Your task to perform on an android device: turn on bluetooth scan Image 0: 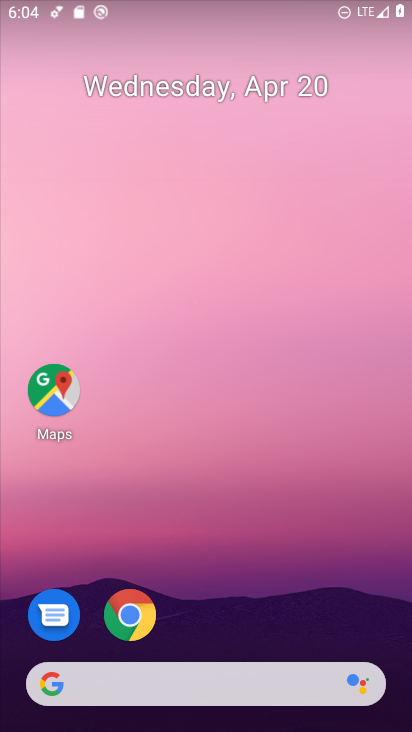
Step 0: drag from (272, 402) to (265, 59)
Your task to perform on an android device: turn on bluetooth scan Image 1: 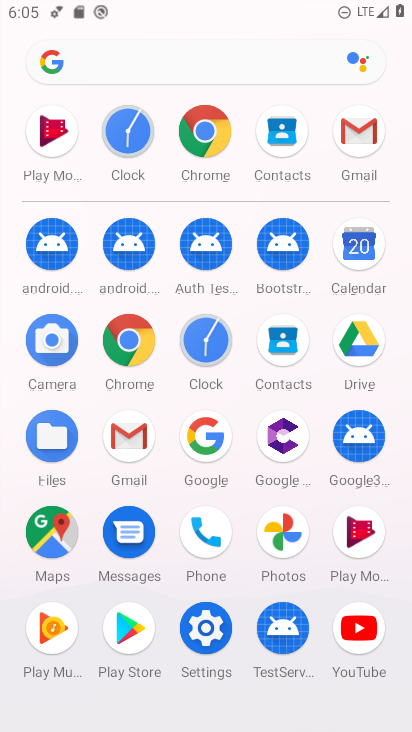
Step 1: click (208, 622)
Your task to perform on an android device: turn on bluetooth scan Image 2: 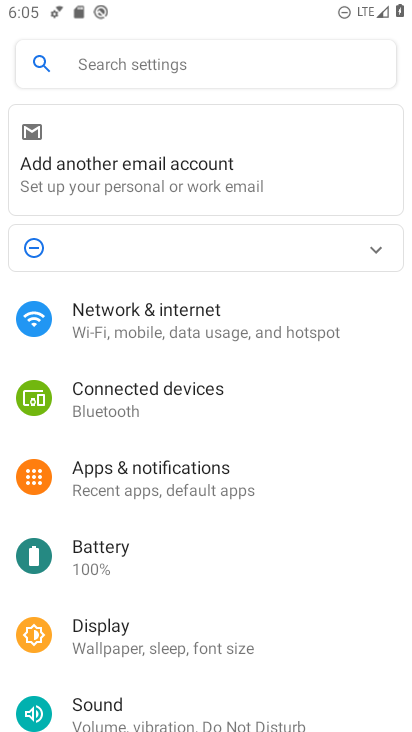
Step 2: drag from (296, 413) to (291, 99)
Your task to perform on an android device: turn on bluetooth scan Image 3: 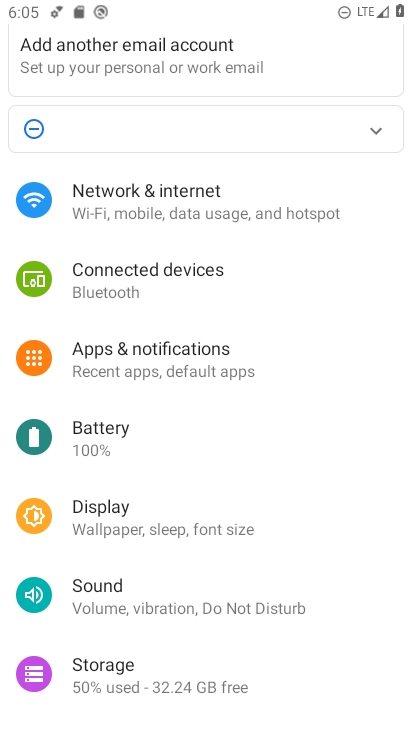
Step 3: drag from (307, 668) to (276, 157)
Your task to perform on an android device: turn on bluetooth scan Image 4: 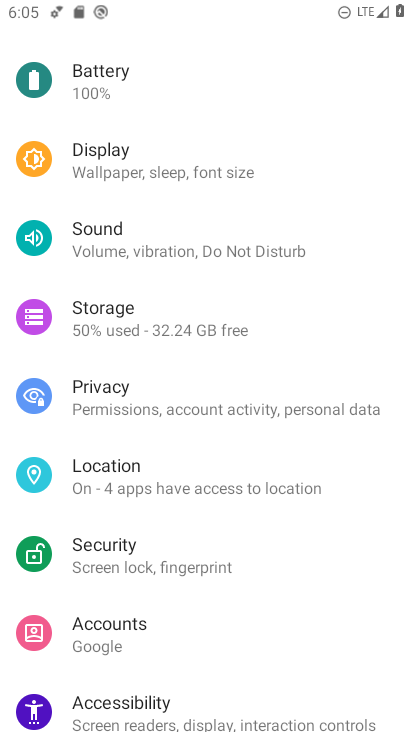
Step 4: drag from (328, 646) to (249, 48)
Your task to perform on an android device: turn on bluetooth scan Image 5: 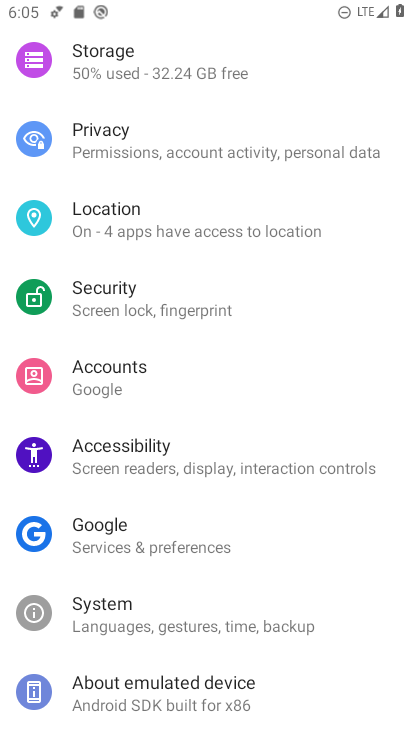
Step 5: click (164, 228)
Your task to perform on an android device: turn on bluetooth scan Image 6: 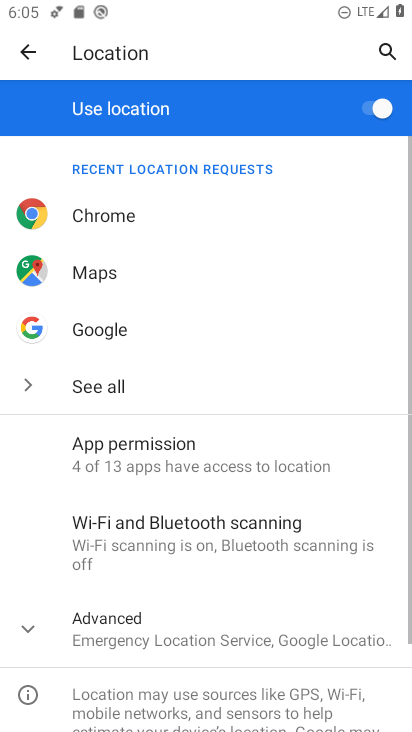
Step 6: click (191, 525)
Your task to perform on an android device: turn on bluetooth scan Image 7: 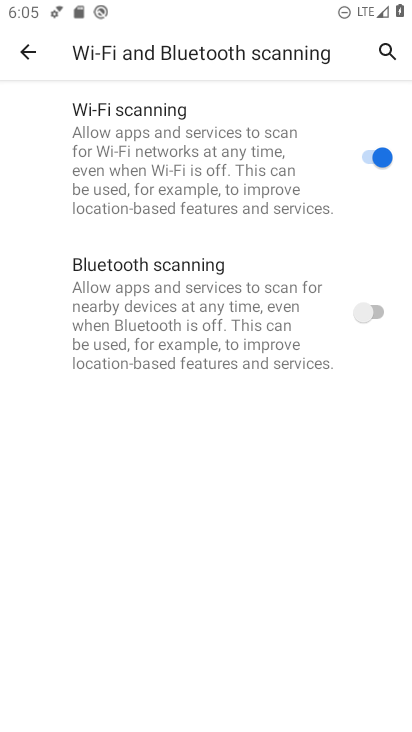
Step 7: click (377, 310)
Your task to perform on an android device: turn on bluetooth scan Image 8: 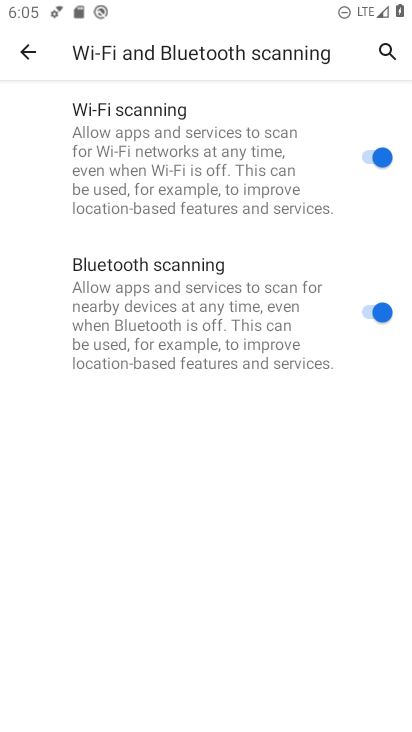
Step 8: task complete